Your task to perform on an android device: toggle priority inbox in the gmail app Image 0: 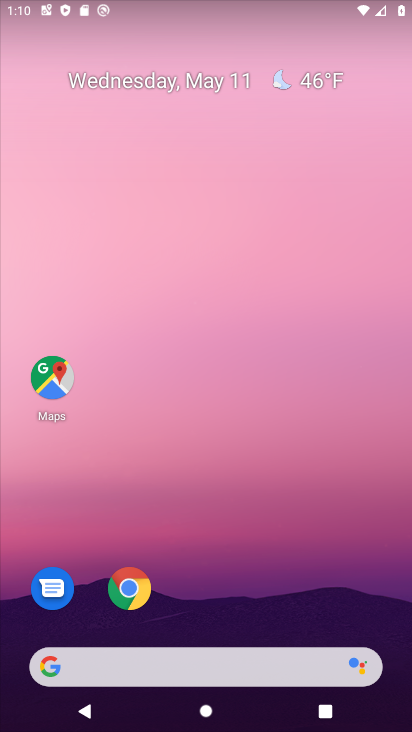
Step 0: drag from (285, 552) to (284, 160)
Your task to perform on an android device: toggle priority inbox in the gmail app Image 1: 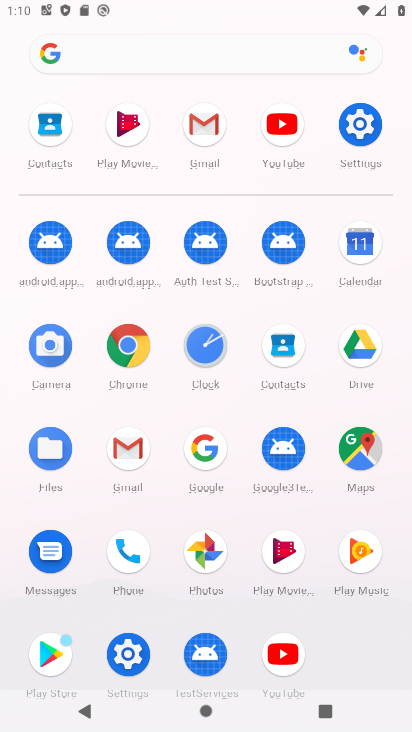
Step 1: click (207, 133)
Your task to perform on an android device: toggle priority inbox in the gmail app Image 2: 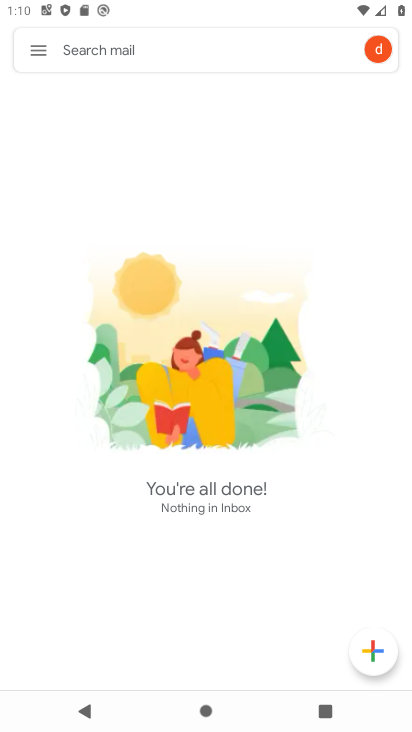
Step 2: click (45, 47)
Your task to perform on an android device: toggle priority inbox in the gmail app Image 3: 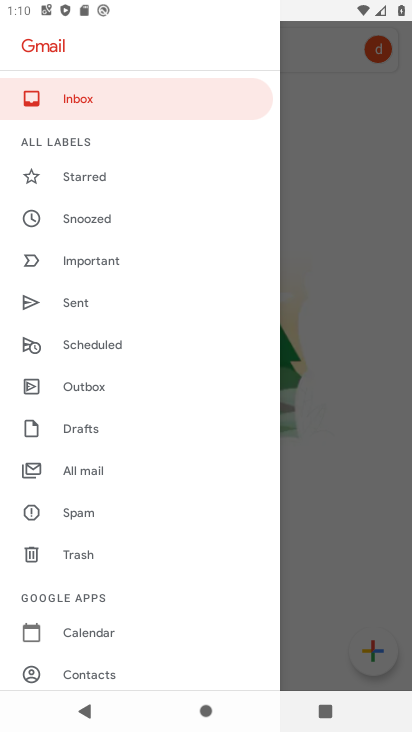
Step 3: drag from (135, 613) to (158, 265)
Your task to perform on an android device: toggle priority inbox in the gmail app Image 4: 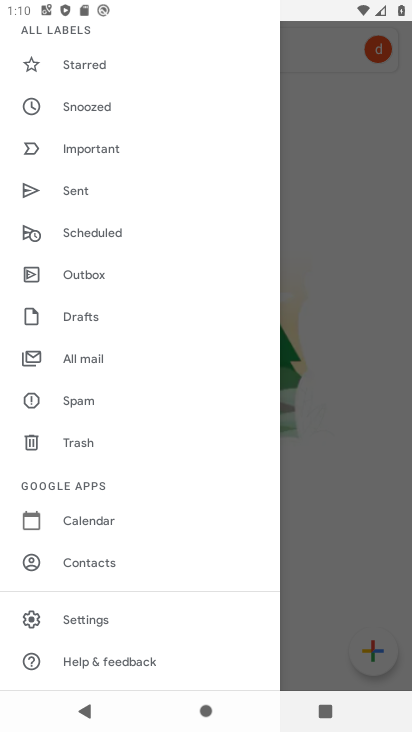
Step 4: click (114, 621)
Your task to perform on an android device: toggle priority inbox in the gmail app Image 5: 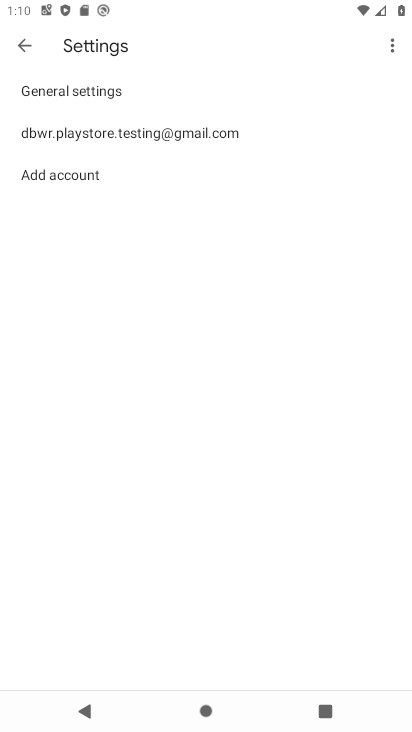
Step 5: click (167, 137)
Your task to perform on an android device: toggle priority inbox in the gmail app Image 6: 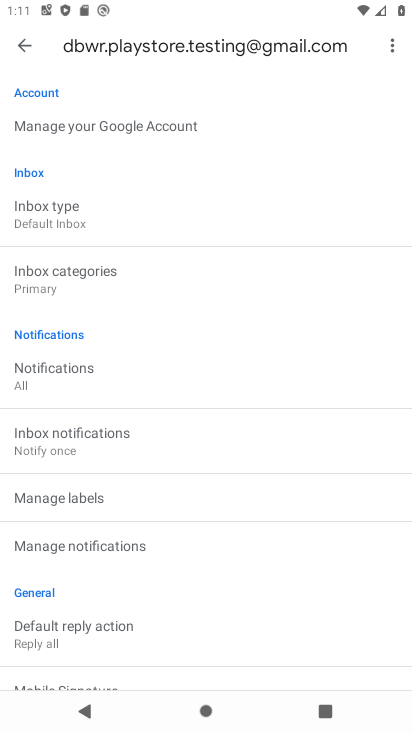
Step 6: click (201, 589)
Your task to perform on an android device: toggle priority inbox in the gmail app Image 7: 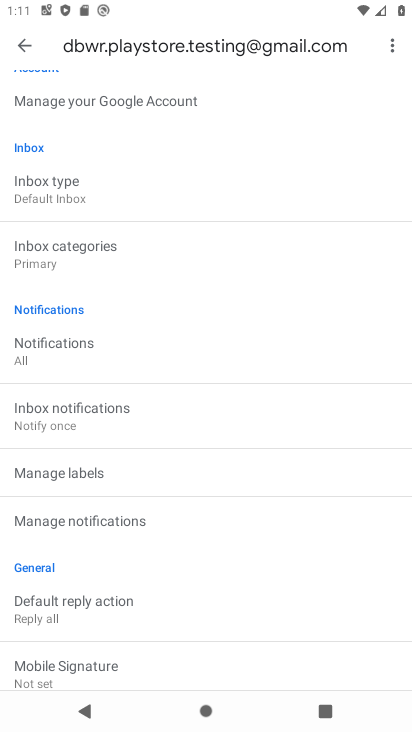
Step 7: drag from (153, 663) to (197, 547)
Your task to perform on an android device: toggle priority inbox in the gmail app Image 8: 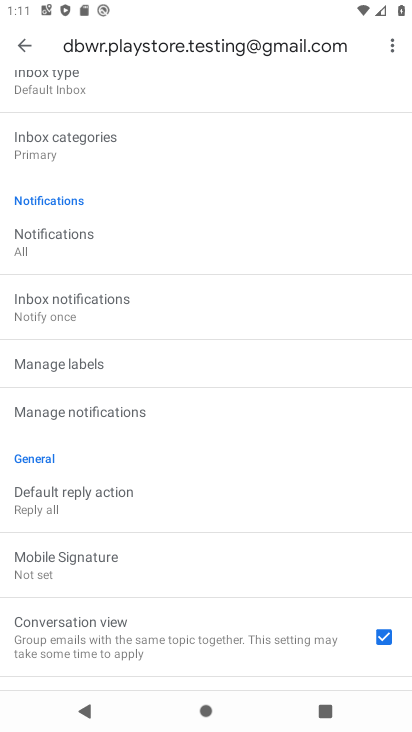
Step 8: drag from (119, 155) to (126, 454)
Your task to perform on an android device: toggle priority inbox in the gmail app Image 9: 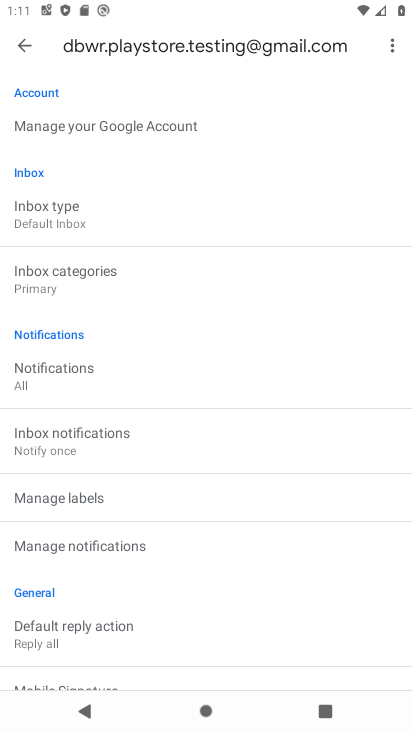
Step 9: drag from (144, 403) to (150, 561)
Your task to perform on an android device: toggle priority inbox in the gmail app Image 10: 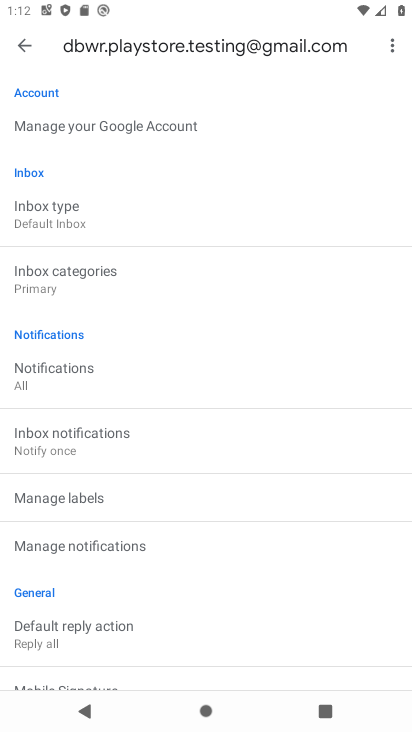
Step 10: click (77, 233)
Your task to perform on an android device: toggle priority inbox in the gmail app Image 11: 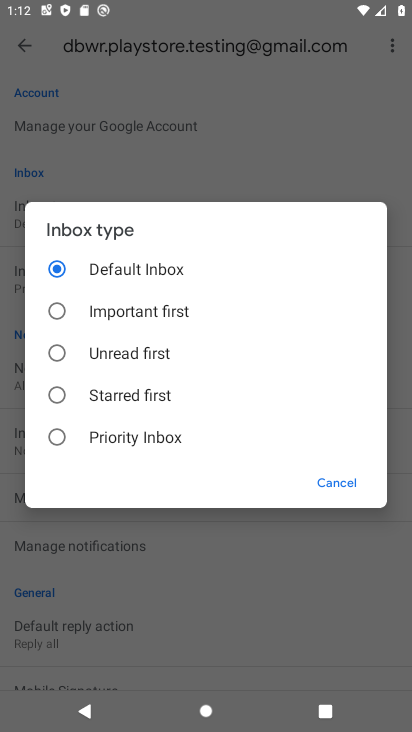
Step 11: click (146, 437)
Your task to perform on an android device: toggle priority inbox in the gmail app Image 12: 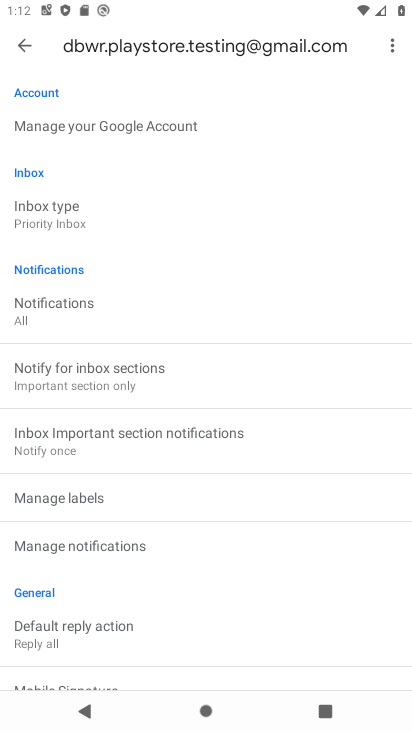
Step 12: task complete